Your task to perform on an android device: change the clock display to show seconds Image 0: 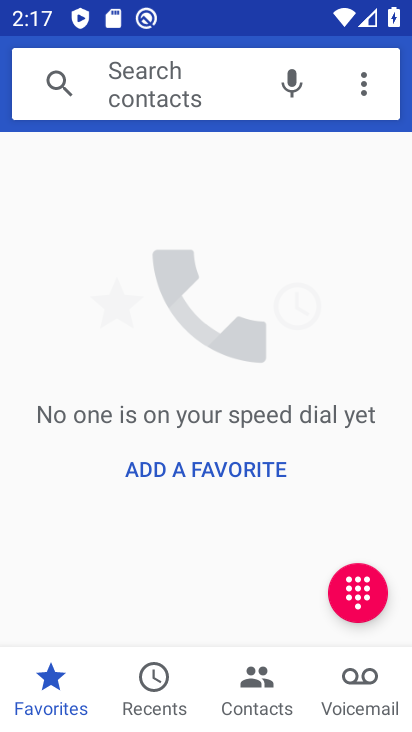
Step 0: press back button
Your task to perform on an android device: change the clock display to show seconds Image 1: 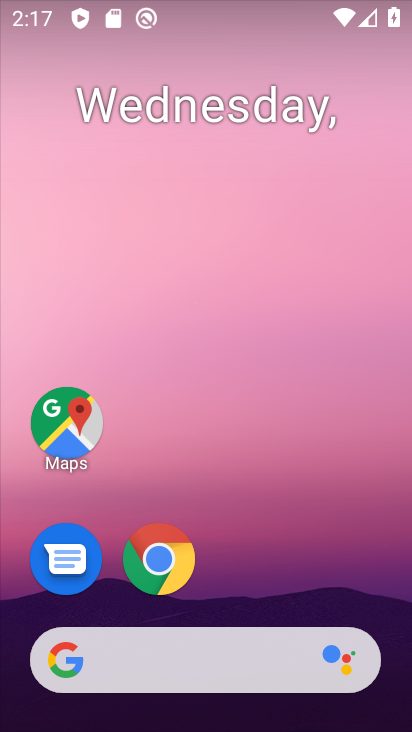
Step 1: drag from (259, 565) to (231, 10)
Your task to perform on an android device: change the clock display to show seconds Image 2: 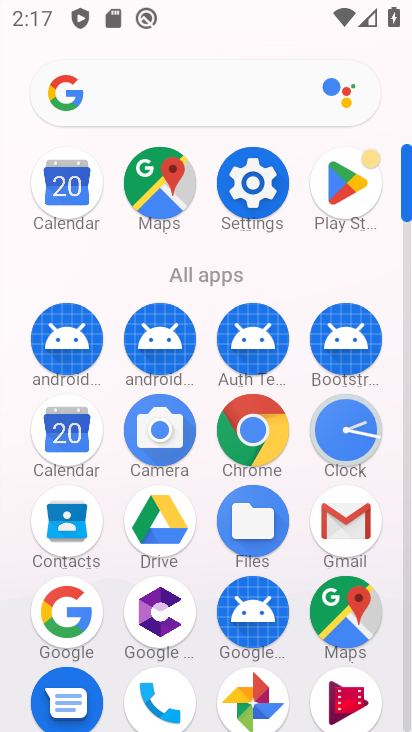
Step 2: click (339, 443)
Your task to perform on an android device: change the clock display to show seconds Image 3: 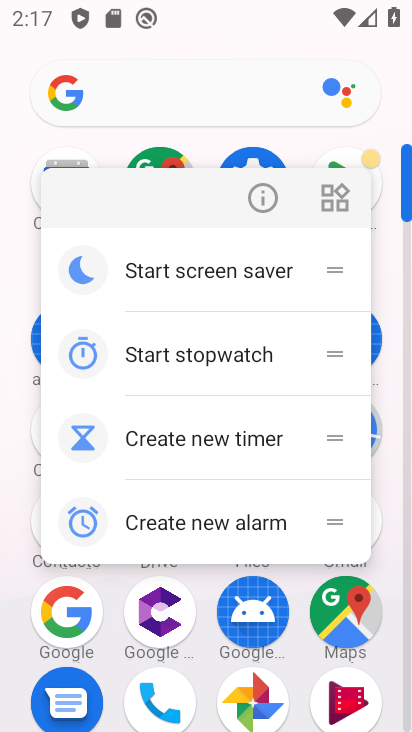
Step 3: click (391, 348)
Your task to perform on an android device: change the clock display to show seconds Image 4: 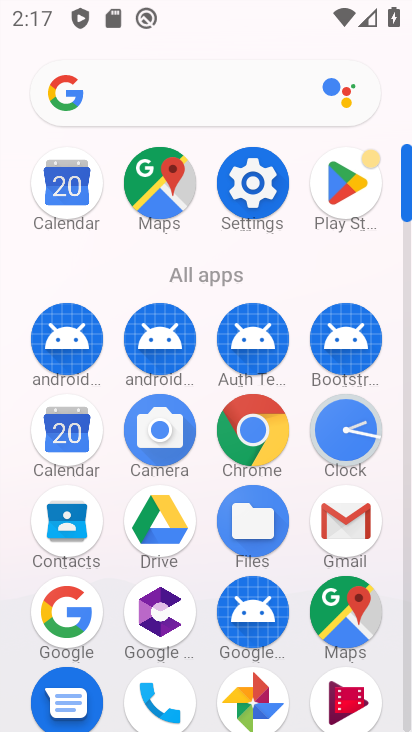
Step 4: click (341, 445)
Your task to perform on an android device: change the clock display to show seconds Image 5: 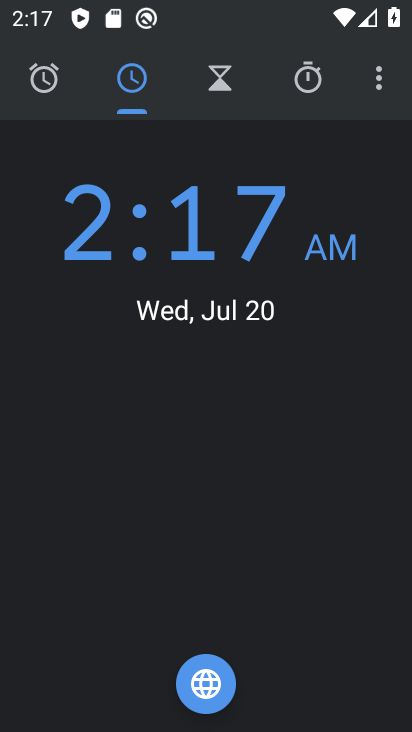
Step 5: click (374, 76)
Your task to perform on an android device: change the clock display to show seconds Image 6: 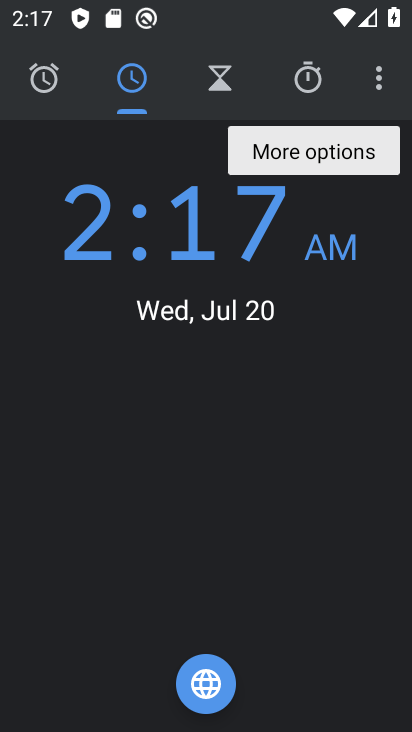
Step 6: click (380, 61)
Your task to perform on an android device: change the clock display to show seconds Image 7: 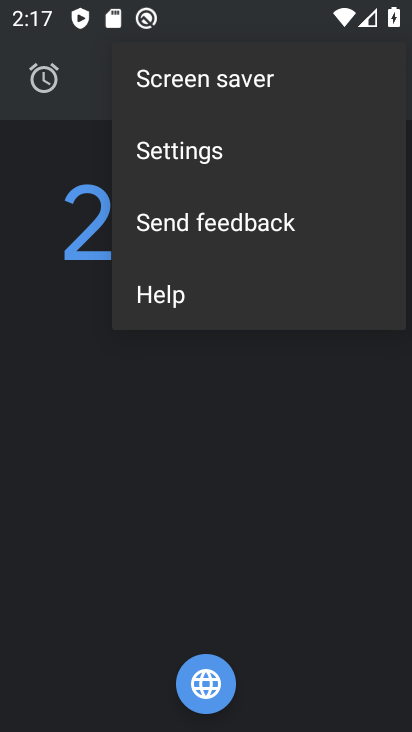
Step 7: click (248, 135)
Your task to perform on an android device: change the clock display to show seconds Image 8: 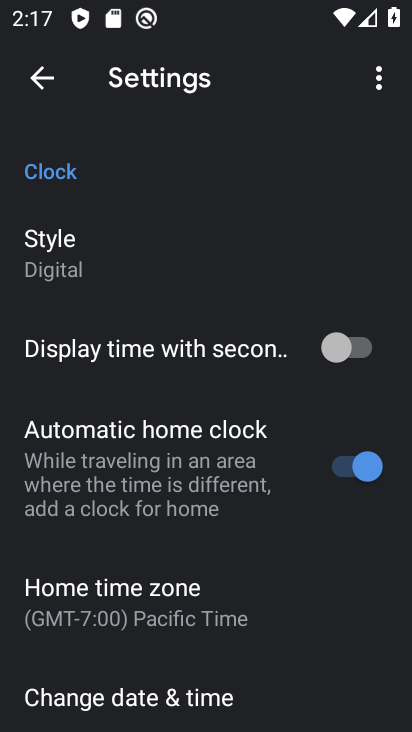
Step 8: click (360, 342)
Your task to perform on an android device: change the clock display to show seconds Image 9: 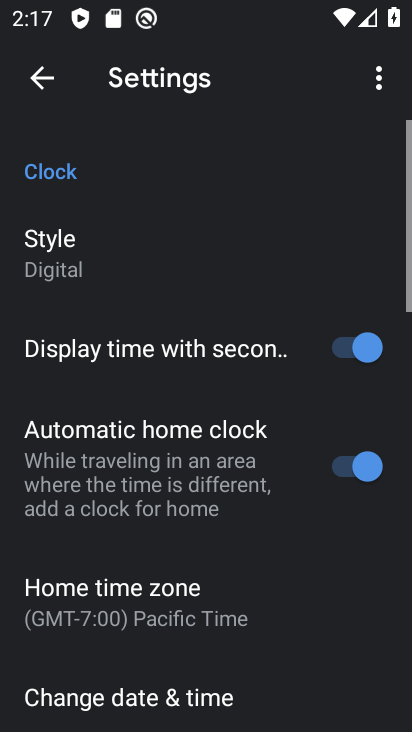
Step 9: task complete